Your task to perform on an android device: Search for vegetarian restaurants on Maps Image 0: 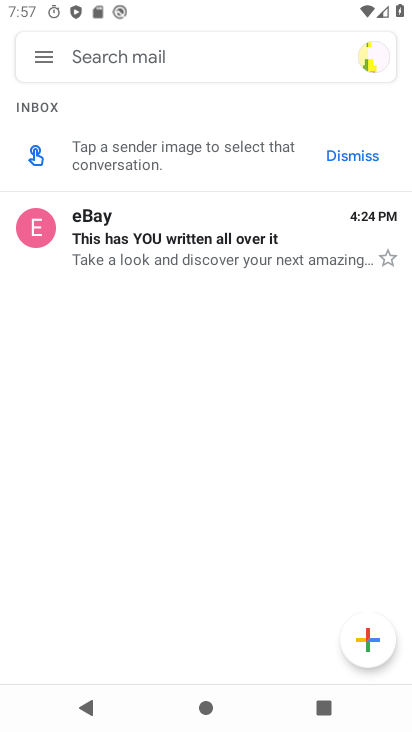
Step 0: press home button
Your task to perform on an android device: Search for vegetarian restaurants on Maps Image 1: 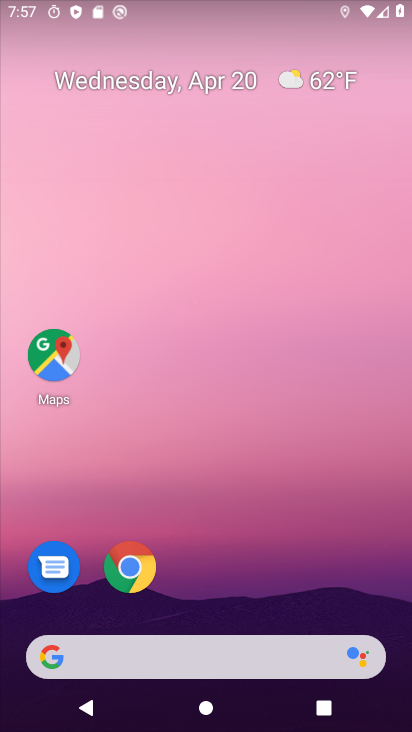
Step 1: click (54, 349)
Your task to perform on an android device: Search for vegetarian restaurants on Maps Image 2: 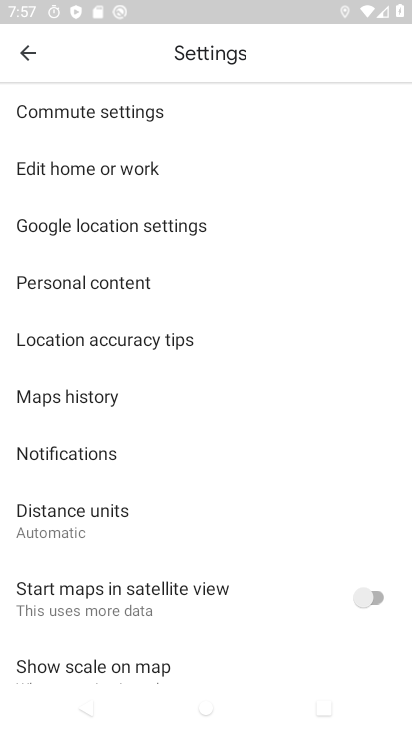
Step 2: click (24, 53)
Your task to perform on an android device: Search for vegetarian restaurants on Maps Image 3: 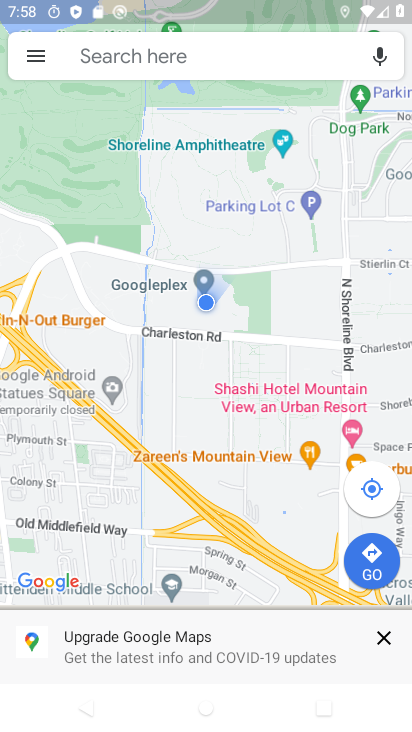
Step 3: click (82, 66)
Your task to perform on an android device: Search for vegetarian restaurants on Maps Image 4: 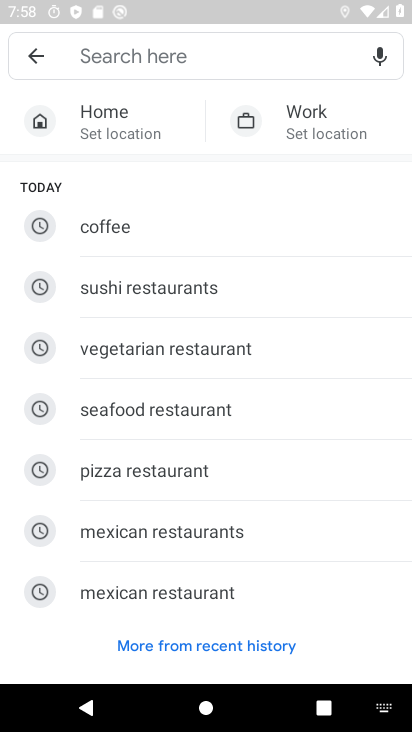
Step 4: type "vegetarian restaurant "
Your task to perform on an android device: Search for vegetarian restaurants on Maps Image 5: 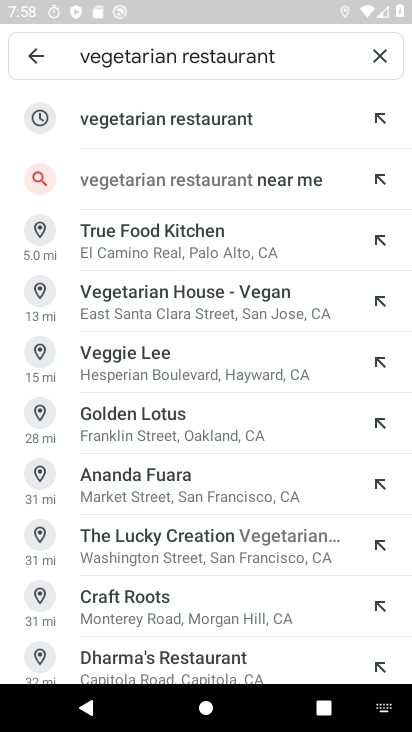
Step 5: click (163, 122)
Your task to perform on an android device: Search for vegetarian restaurants on Maps Image 6: 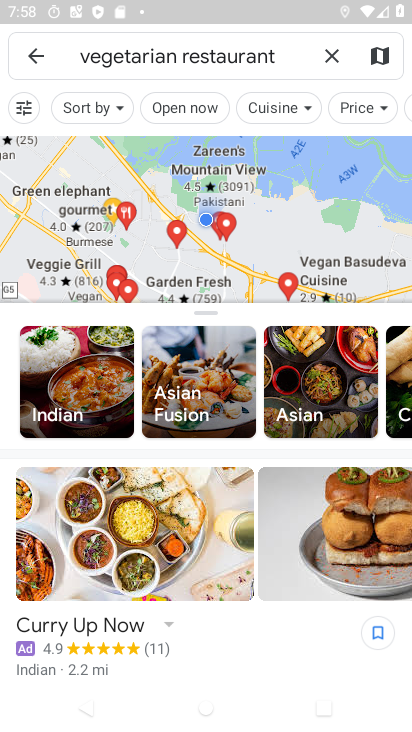
Step 6: task complete